Your task to perform on an android device: Search for sushi restaurants on Maps Image 0: 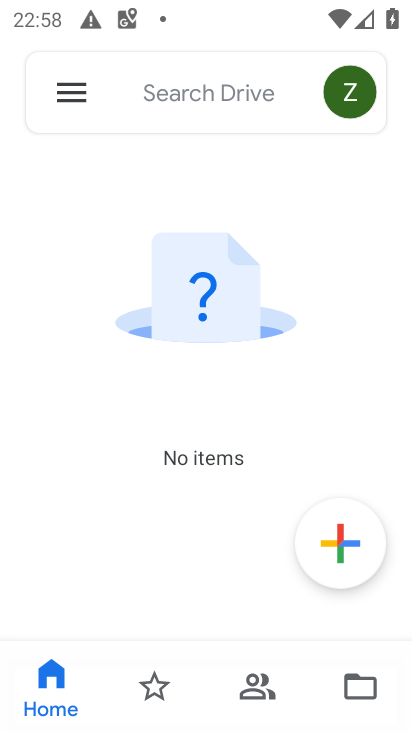
Step 0: press home button
Your task to perform on an android device: Search for sushi restaurants on Maps Image 1: 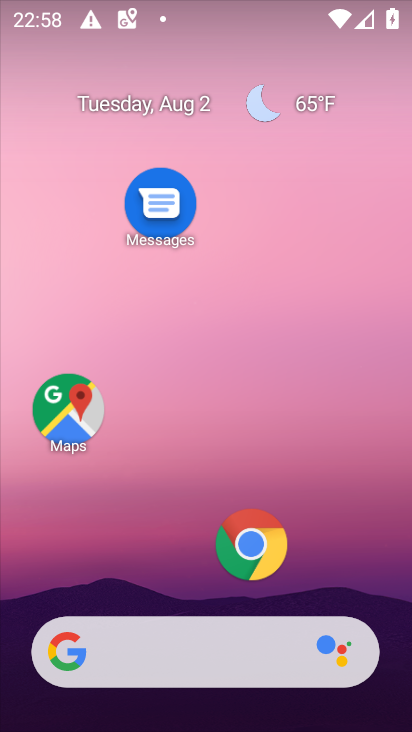
Step 1: click (76, 424)
Your task to perform on an android device: Search for sushi restaurants on Maps Image 2: 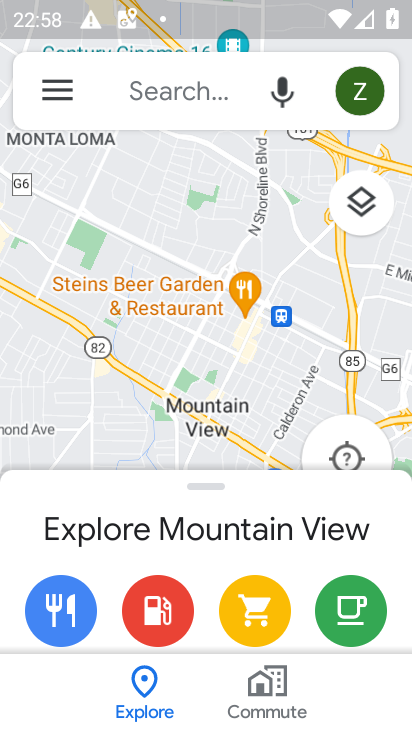
Step 2: click (203, 93)
Your task to perform on an android device: Search for sushi restaurants on Maps Image 3: 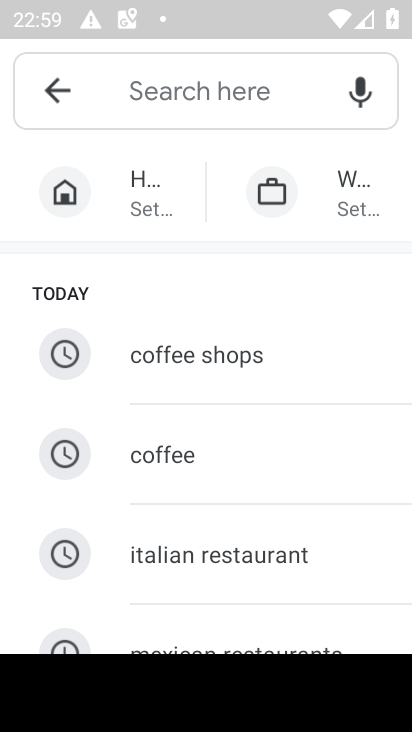
Step 3: type "sushi restaurants"
Your task to perform on an android device: Search for sushi restaurants on Maps Image 4: 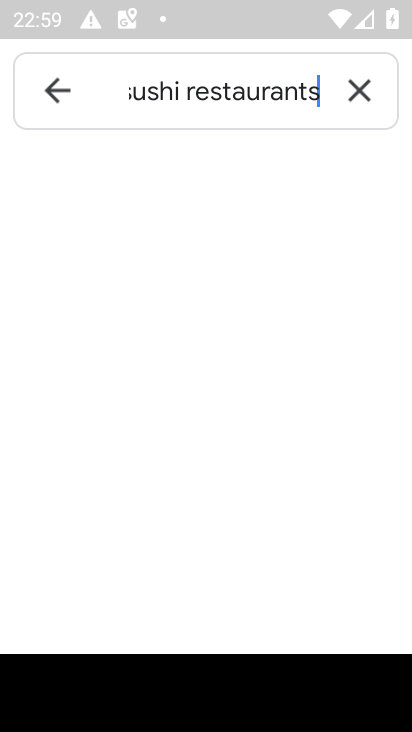
Step 4: type ""
Your task to perform on an android device: Search for sushi restaurants on Maps Image 5: 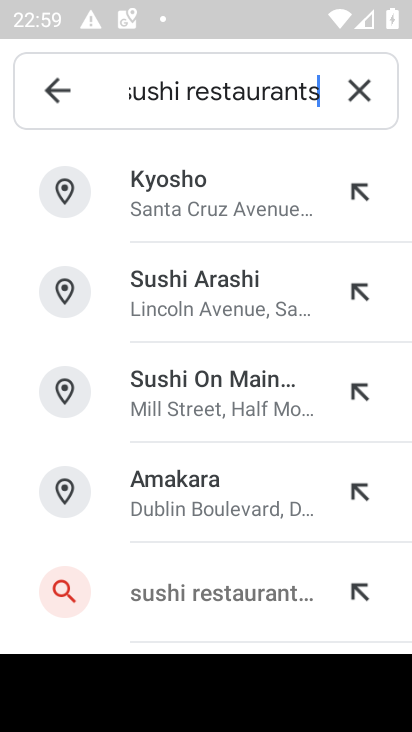
Step 5: click (237, 586)
Your task to perform on an android device: Search for sushi restaurants on Maps Image 6: 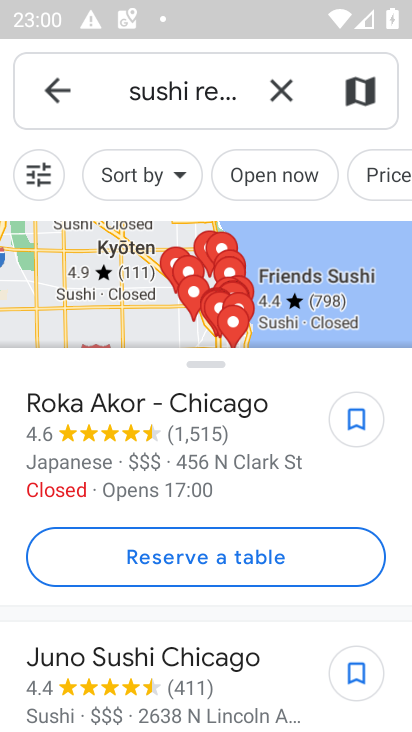
Step 6: task complete